Your task to perform on an android device: star an email in the gmail app Image 0: 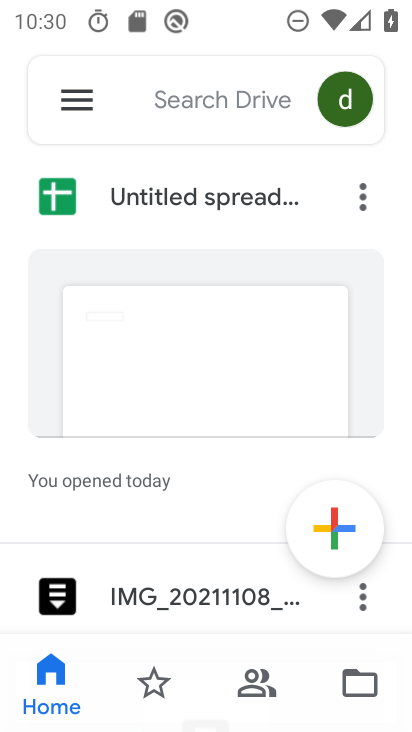
Step 0: press home button
Your task to perform on an android device: star an email in the gmail app Image 1: 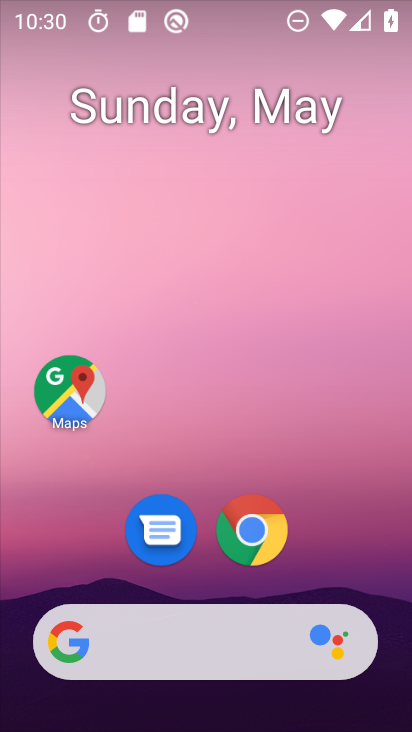
Step 1: drag from (248, 623) to (203, 91)
Your task to perform on an android device: star an email in the gmail app Image 2: 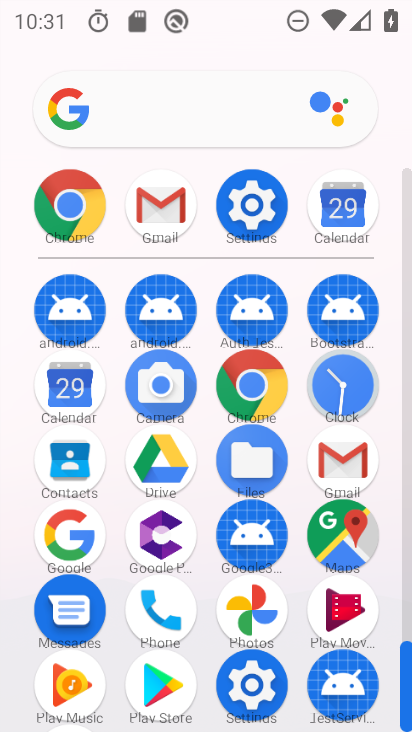
Step 2: click (166, 219)
Your task to perform on an android device: star an email in the gmail app Image 3: 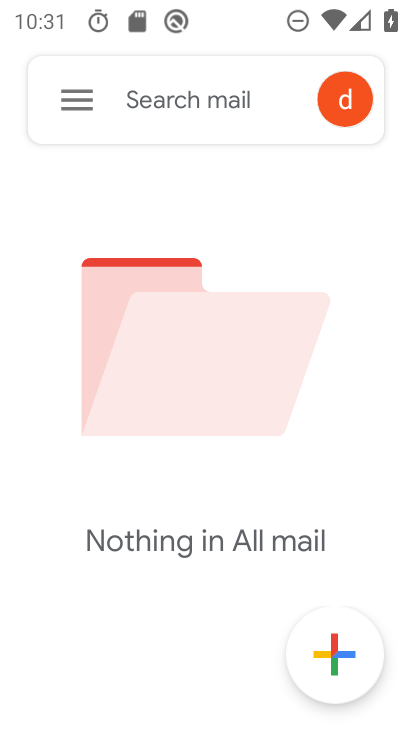
Step 3: click (77, 110)
Your task to perform on an android device: star an email in the gmail app Image 4: 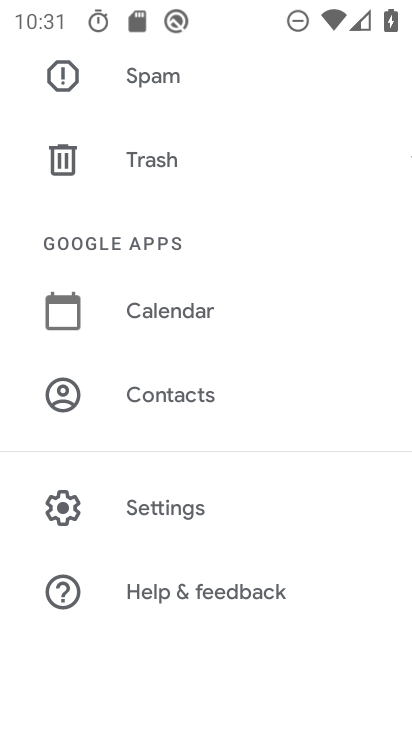
Step 4: drag from (172, 158) to (264, 444)
Your task to perform on an android device: star an email in the gmail app Image 5: 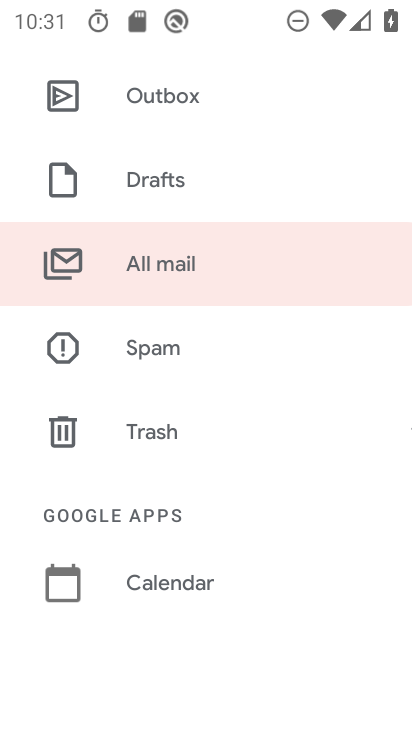
Step 5: drag from (201, 158) to (214, 439)
Your task to perform on an android device: star an email in the gmail app Image 6: 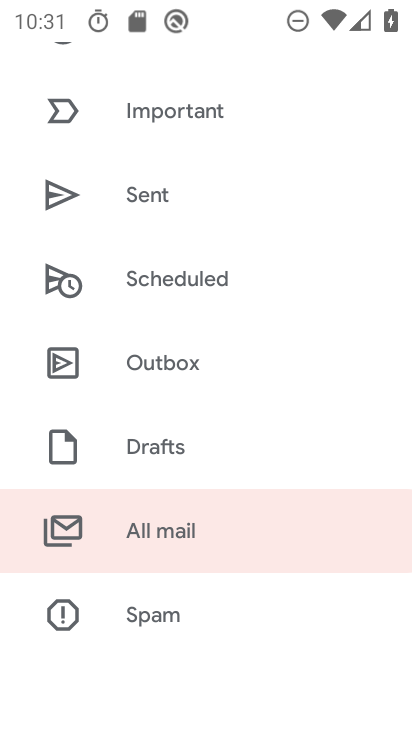
Step 6: drag from (208, 120) to (202, 392)
Your task to perform on an android device: star an email in the gmail app Image 7: 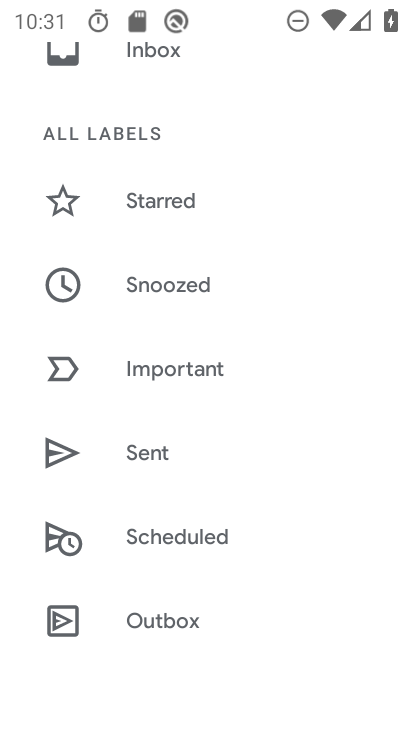
Step 7: drag from (157, 107) to (164, 298)
Your task to perform on an android device: star an email in the gmail app Image 8: 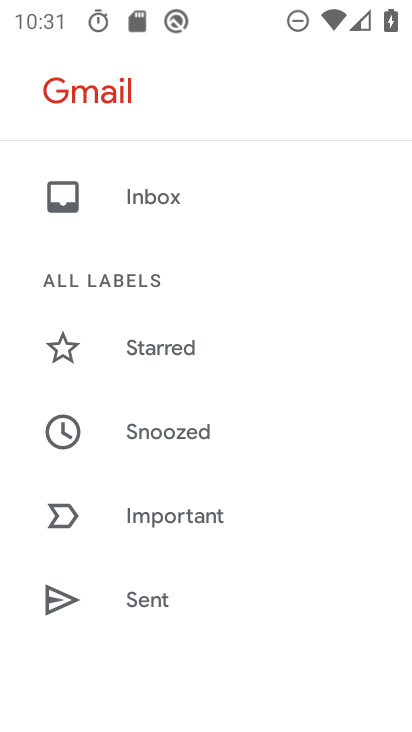
Step 8: drag from (148, 172) to (158, 340)
Your task to perform on an android device: star an email in the gmail app Image 9: 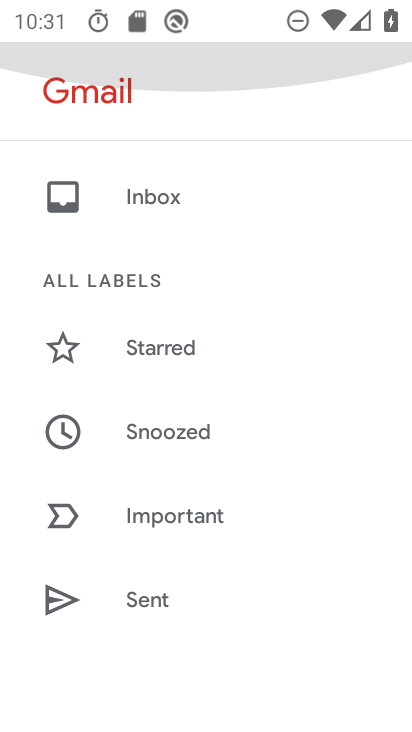
Step 9: click (158, 341)
Your task to perform on an android device: star an email in the gmail app Image 10: 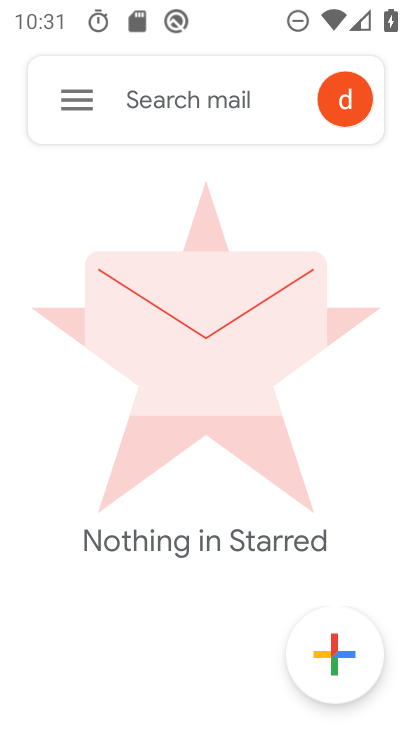
Step 10: task complete